Your task to perform on an android device: toggle translation in the chrome app Image 0: 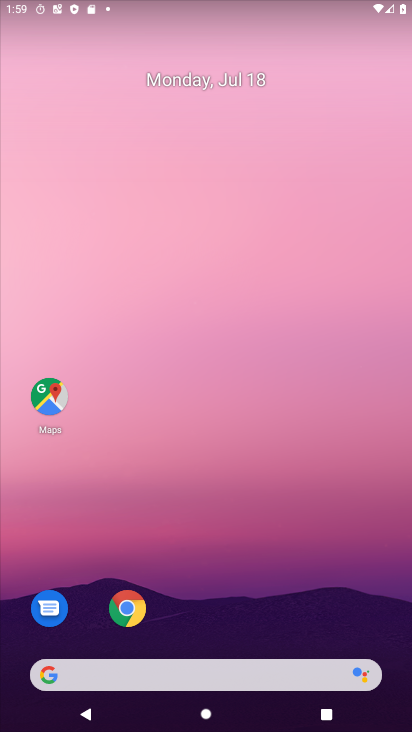
Step 0: click (129, 603)
Your task to perform on an android device: toggle translation in the chrome app Image 1: 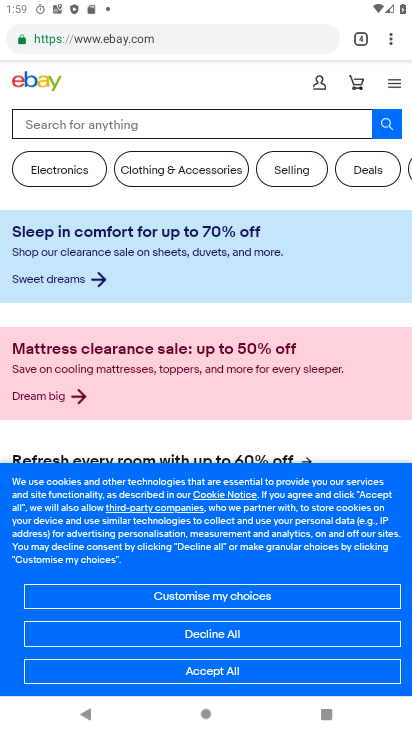
Step 1: click (391, 41)
Your task to perform on an android device: toggle translation in the chrome app Image 2: 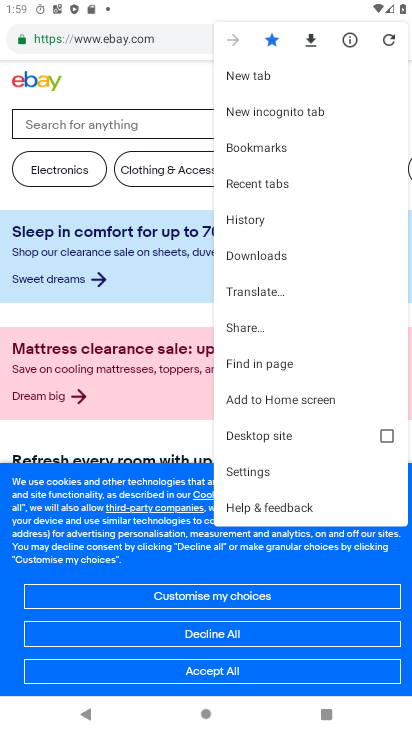
Step 2: click (250, 467)
Your task to perform on an android device: toggle translation in the chrome app Image 3: 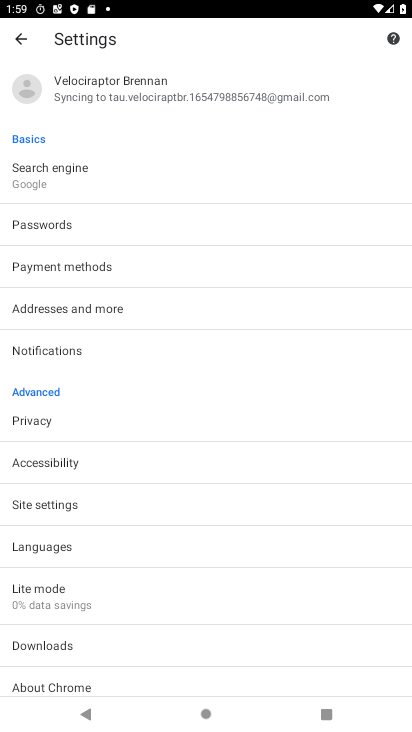
Step 3: click (59, 541)
Your task to perform on an android device: toggle translation in the chrome app Image 4: 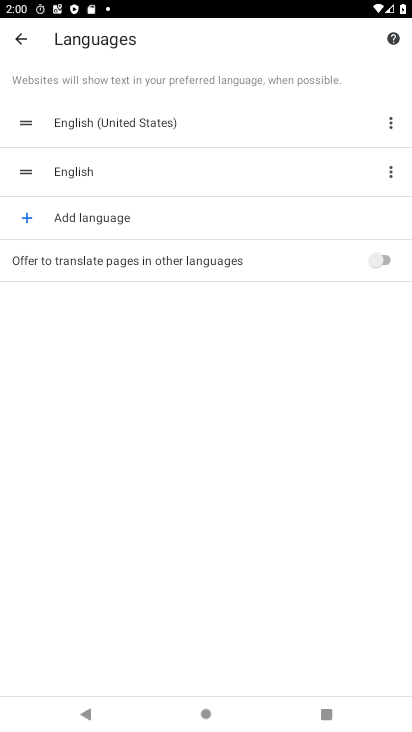
Step 4: click (391, 260)
Your task to perform on an android device: toggle translation in the chrome app Image 5: 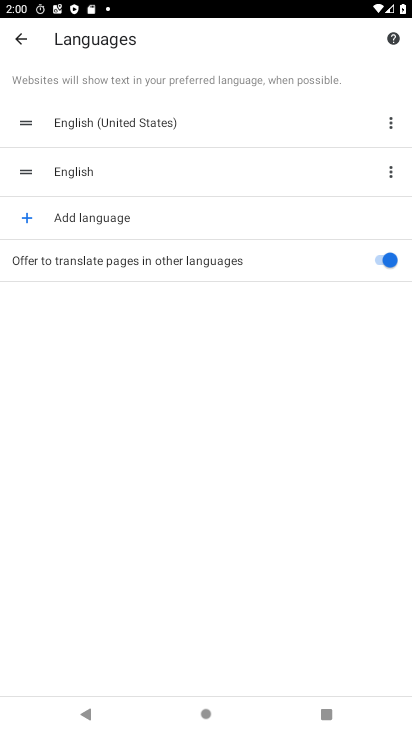
Step 5: task complete